Your task to perform on an android device: stop showing notifications on the lock screen Image 0: 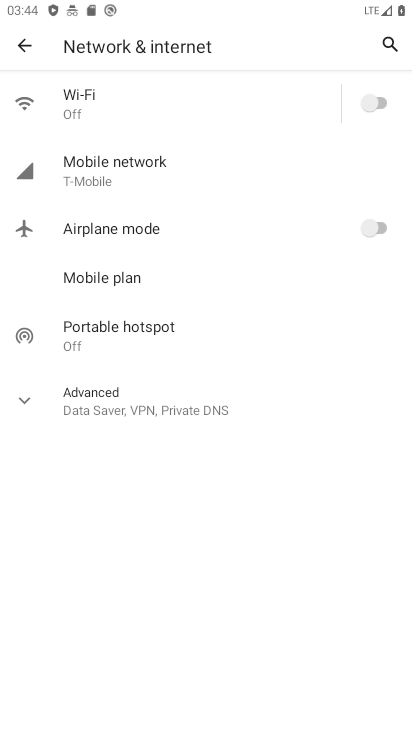
Step 0: press home button
Your task to perform on an android device: stop showing notifications on the lock screen Image 1: 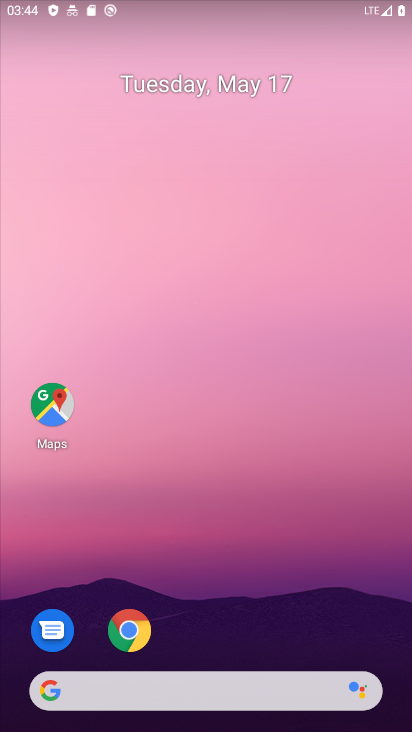
Step 1: drag from (168, 647) to (244, 122)
Your task to perform on an android device: stop showing notifications on the lock screen Image 2: 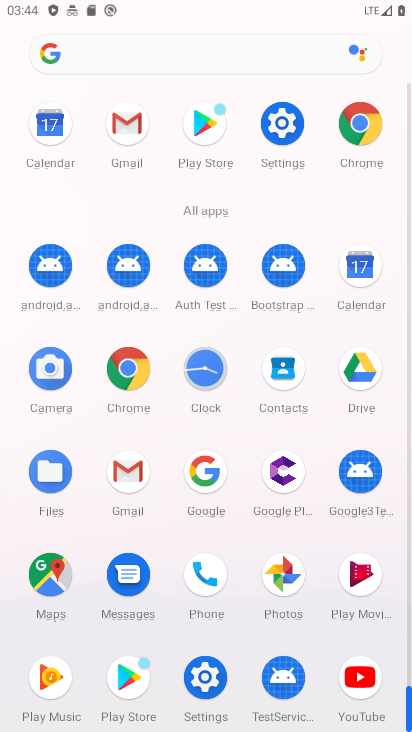
Step 2: drag from (126, 633) to (192, 418)
Your task to perform on an android device: stop showing notifications on the lock screen Image 3: 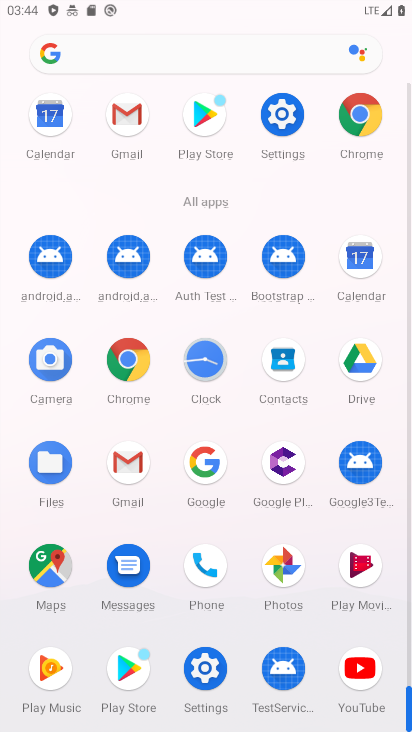
Step 3: click (203, 670)
Your task to perform on an android device: stop showing notifications on the lock screen Image 4: 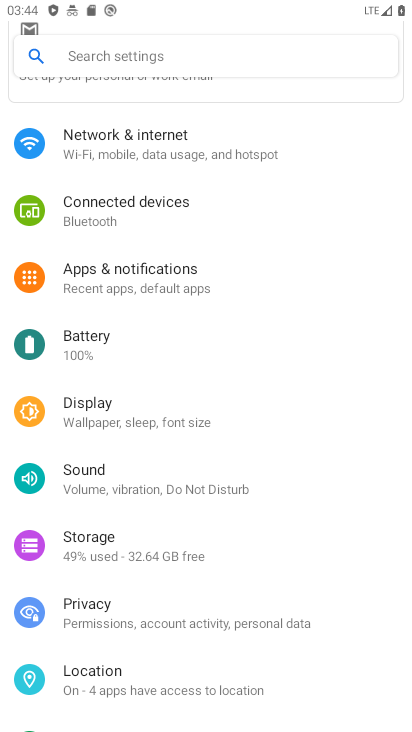
Step 4: click (201, 285)
Your task to perform on an android device: stop showing notifications on the lock screen Image 5: 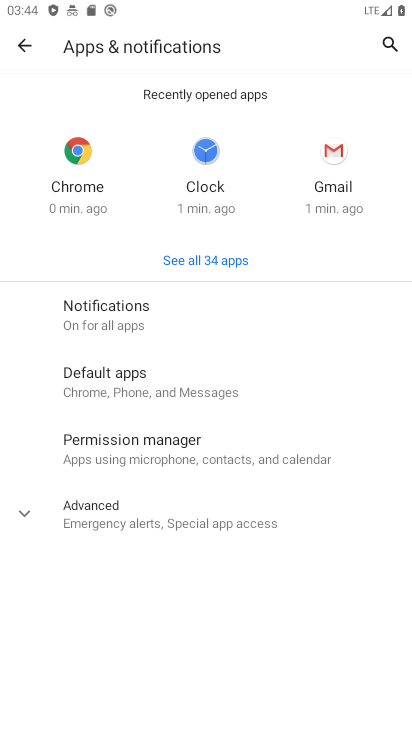
Step 5: click (233, 321)
Your task to perform on an android device: stop showing notifications on the lock screen Image 6: 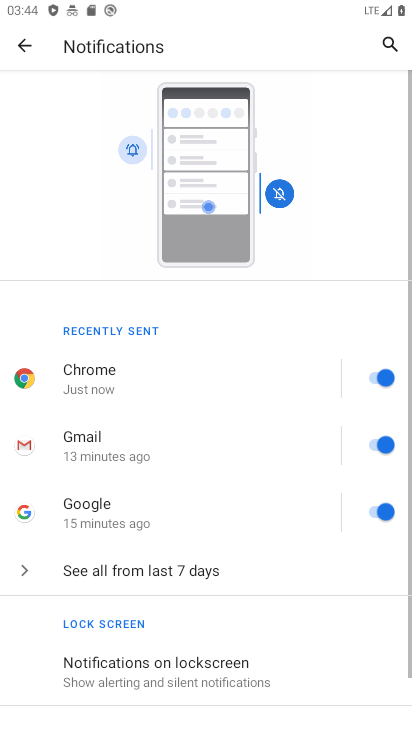
Step 6: drag from (187, 648) to (248, 319)
Your task to perform on an android device: stop showing notifications on the lock screen Image 7: 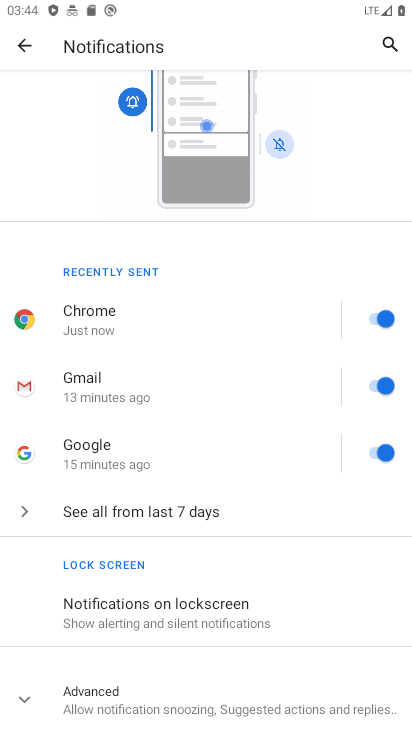
Step 7: click (238, 617)
Your task to perform on an android device: stop showing notifications on the lock screen Image 8: 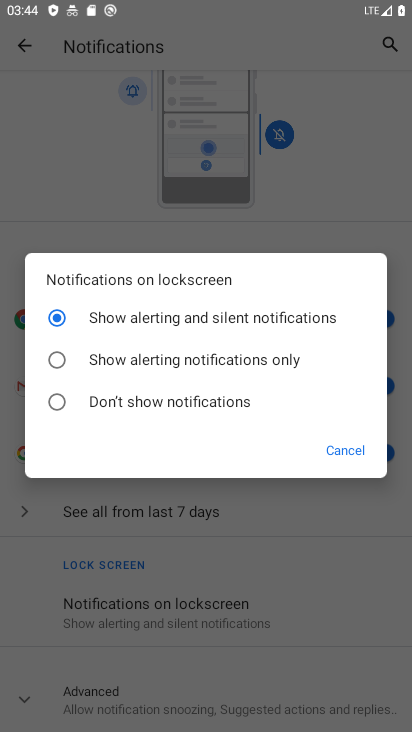
Step 8: click (93, 407)
Your task to perform on an android device: stop showing notifications on the lock screen Image 9: 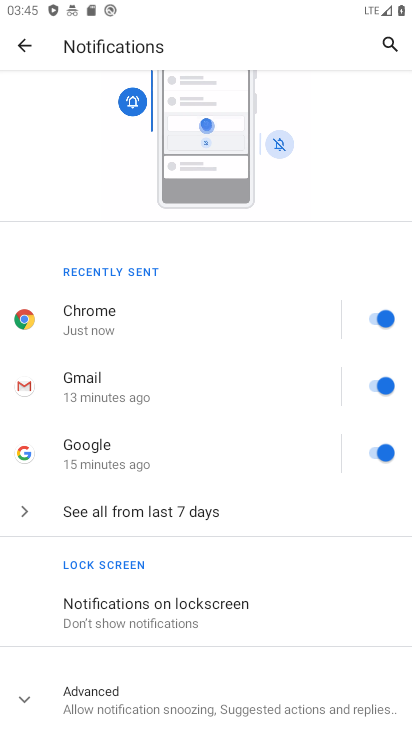
Step 9: task complete